Your task to perform on an android device: Go to Google maps Image 0: 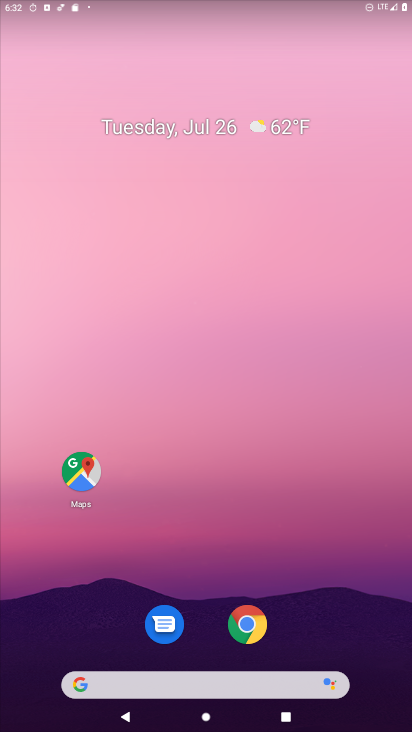
Step 0: drag from (288, 691) to (314, 78)
Your task to perform on an android device: Go to Google maps Image 1: 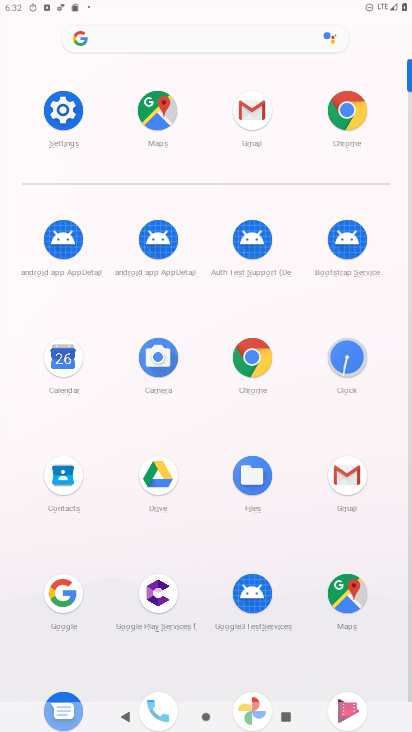
Step 1: click (349, 597)
Your task to perform on an android device: Go to Google maps Image 2: 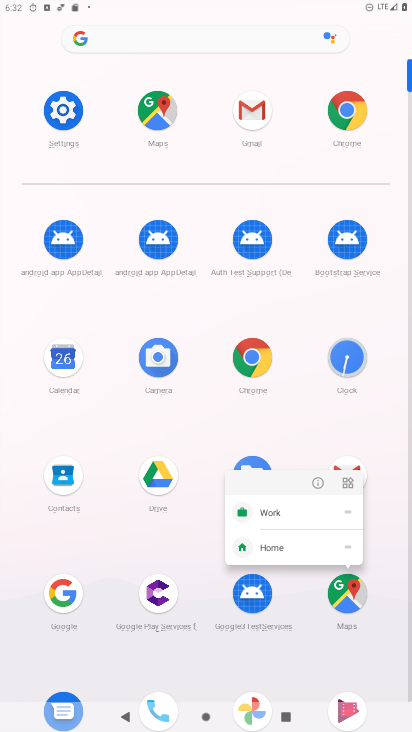
Step 2: click (349, 597)
Your task to perform on an android device: Go to Google maps Image 3: 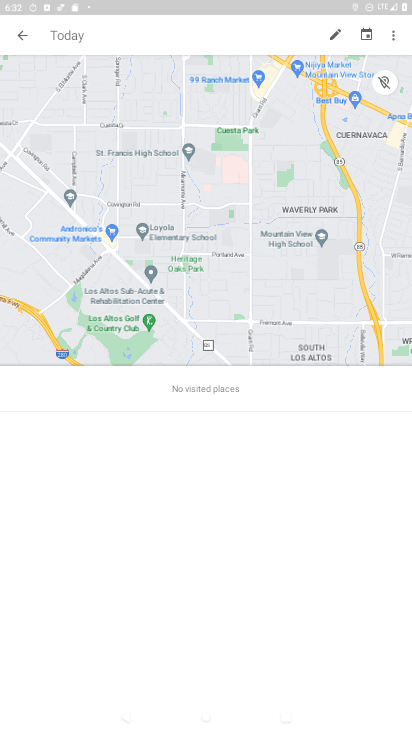
Step 3: task complete